Your task to perform on an android device: Clear the shopping cart on target. Search for "macbook pro" on target, select the first entry, and add it to the cart. Image 0: 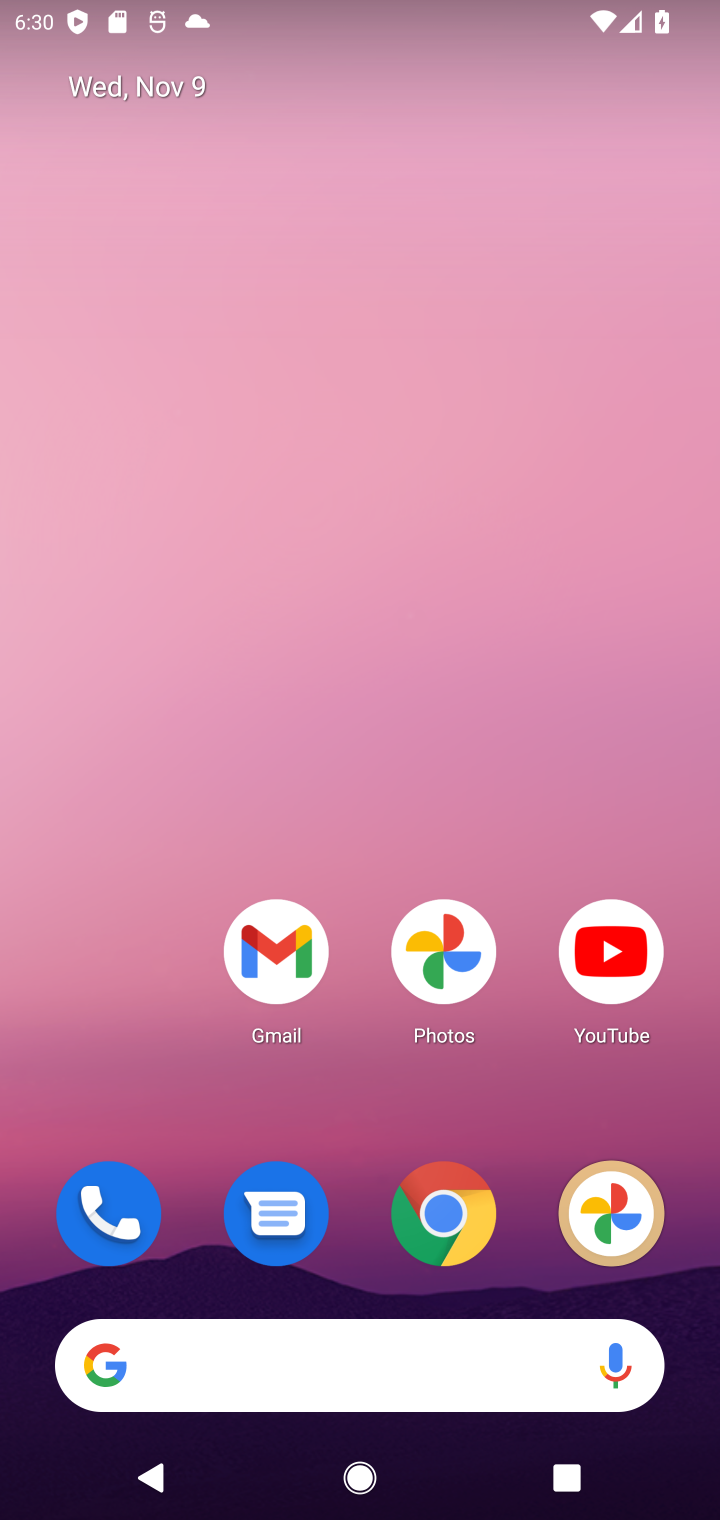
Step 0: click (459, 1219)
Your task to perform on an android device: Clear the shopping cart on target. Search for "macbook pro" on target, select the first entry, and add it to the cart. Image 1: 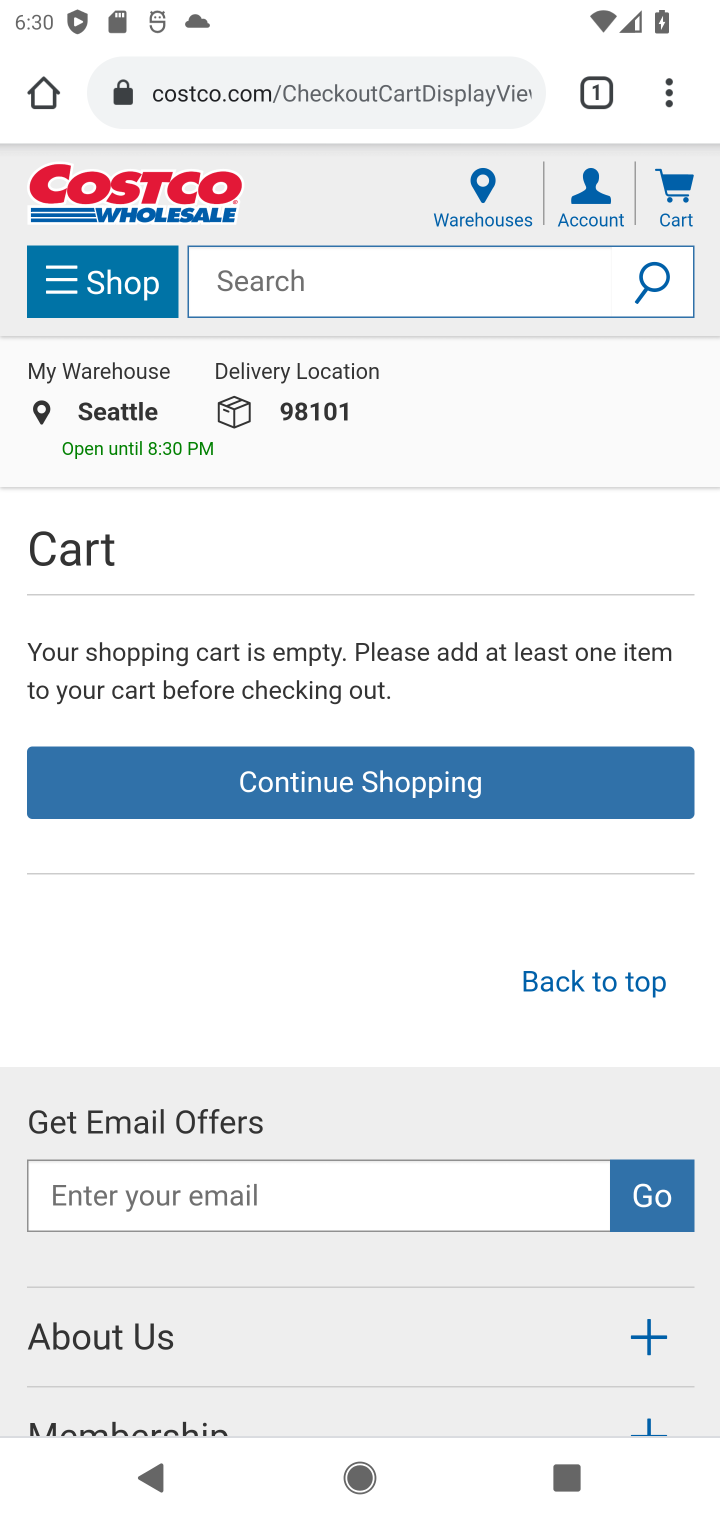
Step 1: click (309, 93)
Your task to perform on an android device: Clear the shopping cart on target. Search for "macbook pro" on target, select the first entry, and add it to the cart. Image 2: 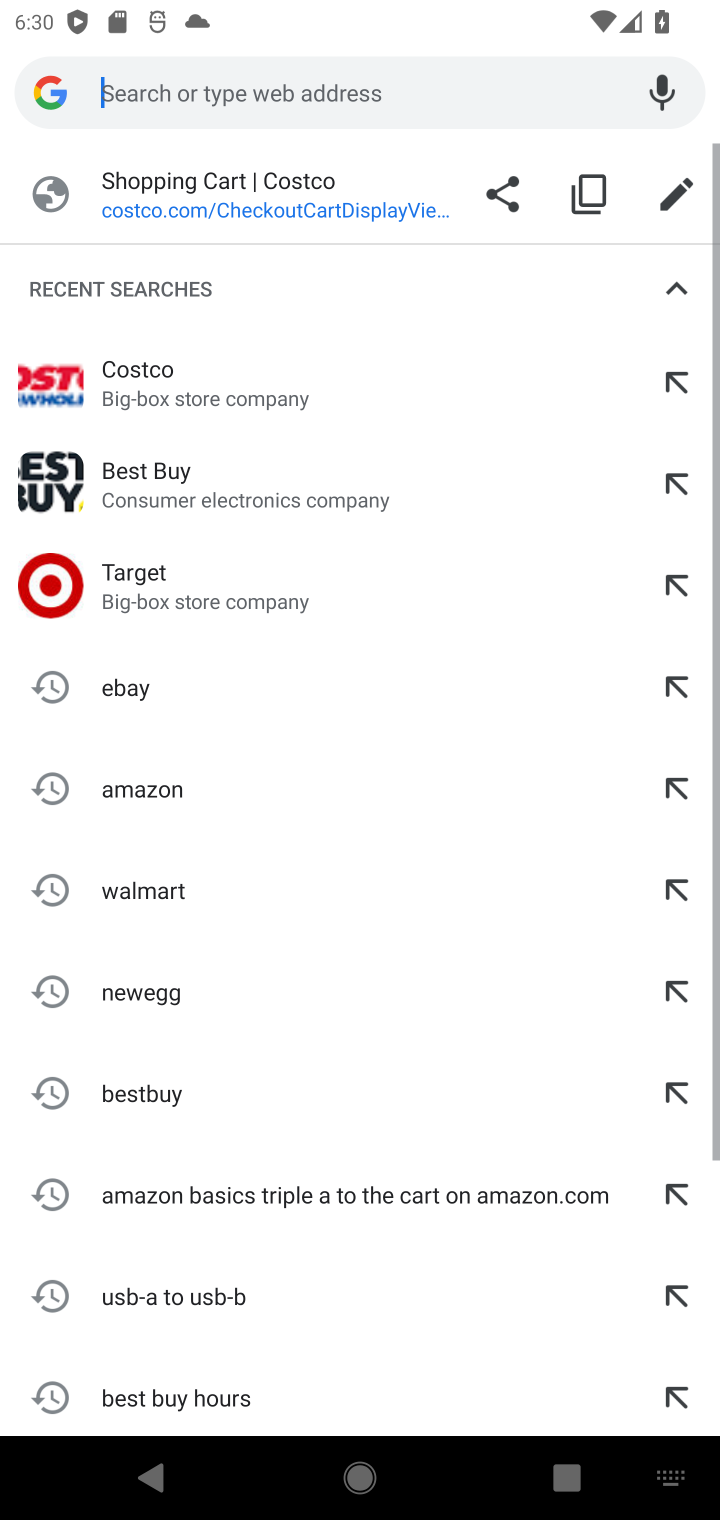
Step 2: click (136, 563)
Your task to perform on an android device: Clear the shopping cart on target. Search for "macbook pro" on target, select the first entry, and add it to the cart. Image 3: 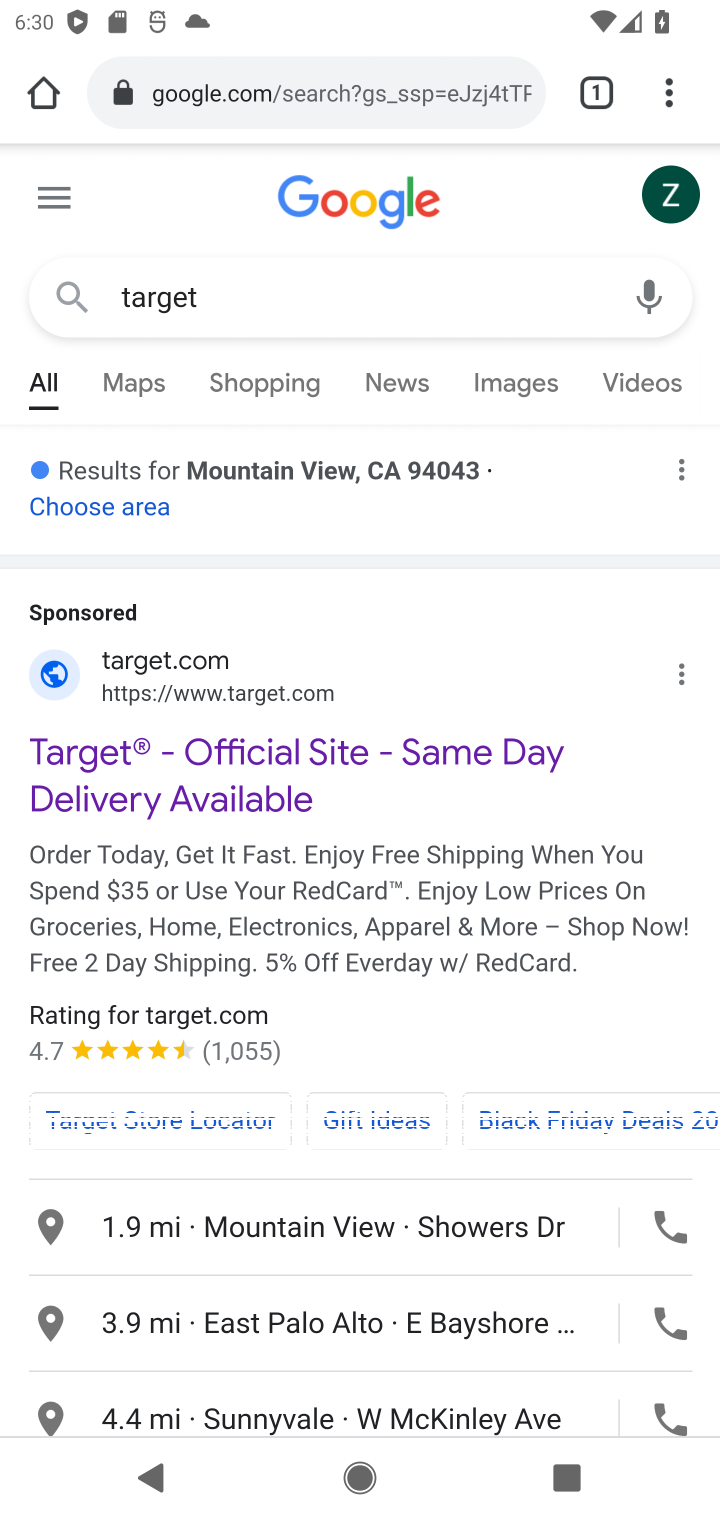
Step 3: drag from (201, 1053) to (241, 310)
Your task to perform on an android device: Clear the shopping cart on target. Search for "macbook pro" on target, select the first entry, and add it to the cart. Image 4: 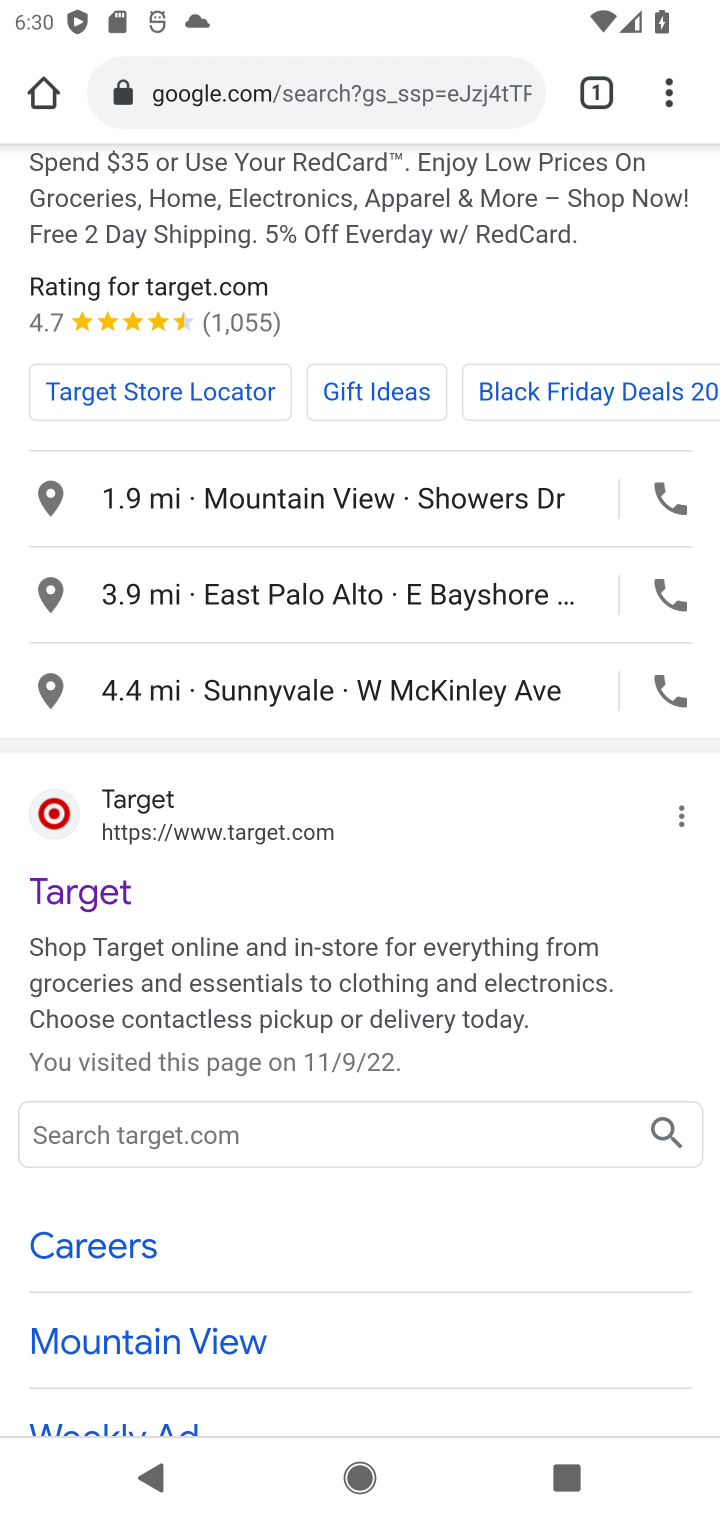
Step 4: click (101, 896)
Your task to perform on an android device: Clear the shopping cart on target. Search for "macbook pro" on target, select the first entry, and add it to the cart. Image 5: 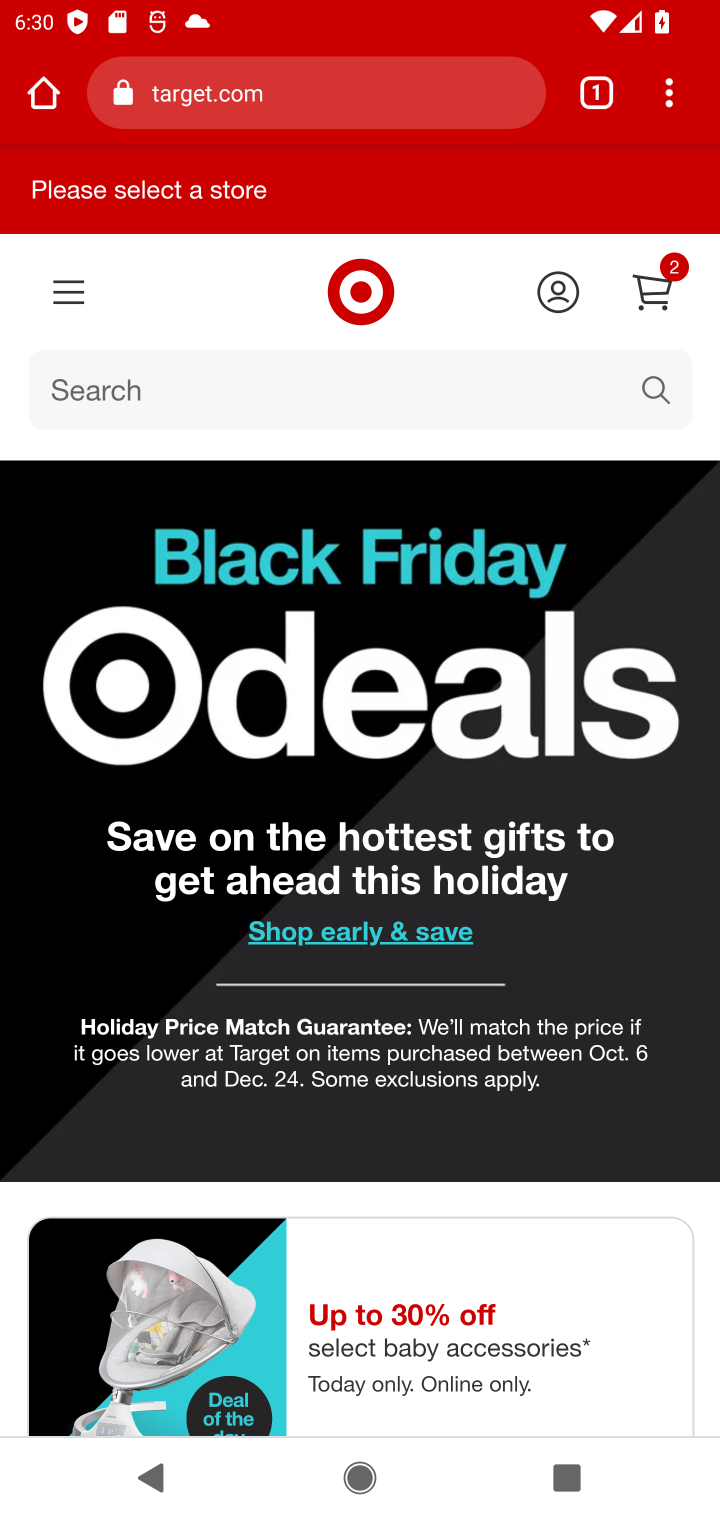
Step 5: click (258, 384)
Your task to perform on an android device: Clear the shopping cart on target. Search for "macbook pro" on target, select the first entry, and add it to the cart. Image 6: 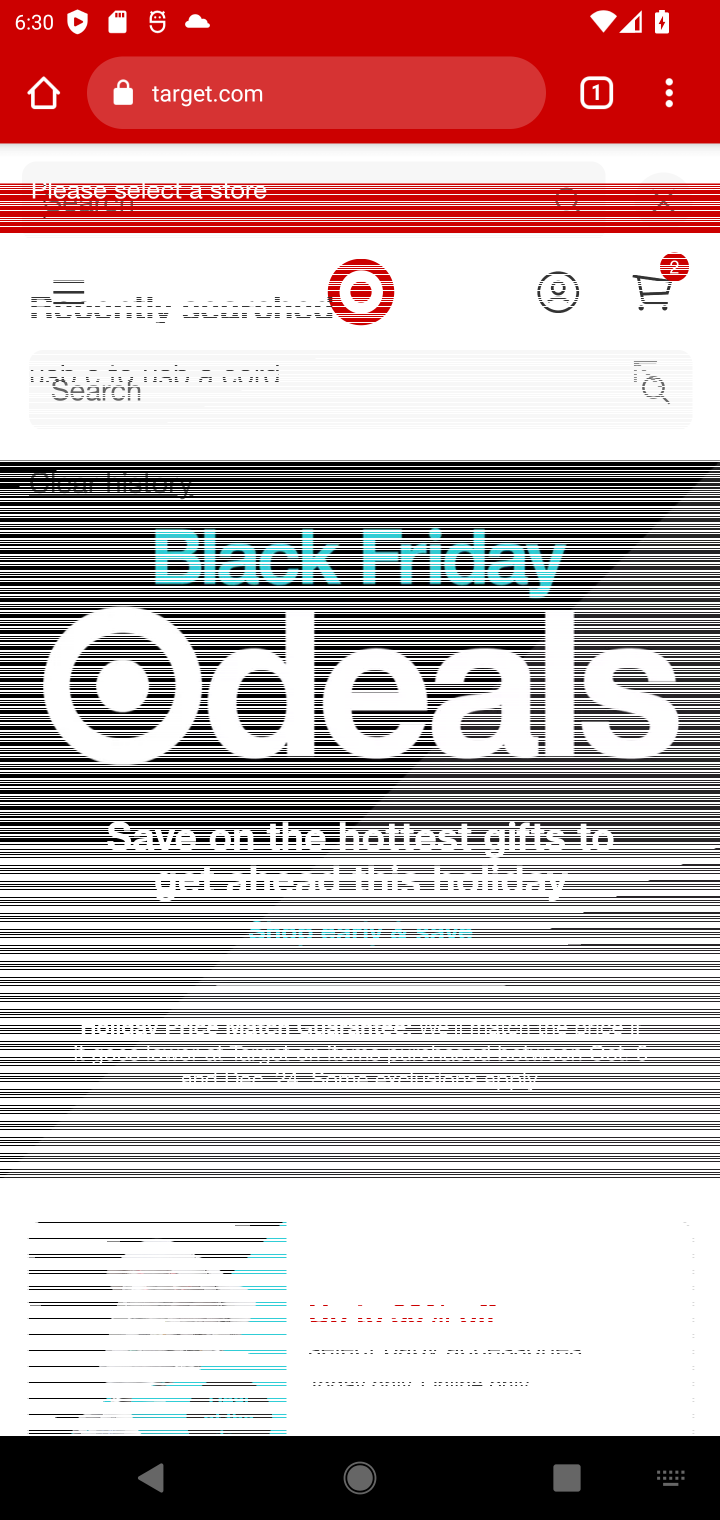
Step 6: type "macbook pro"
Your task to perform on an android device: Clear the shopping cart on target. Search for "macbook pro" on target, select the first entry, and add it to the cart. Image 7: 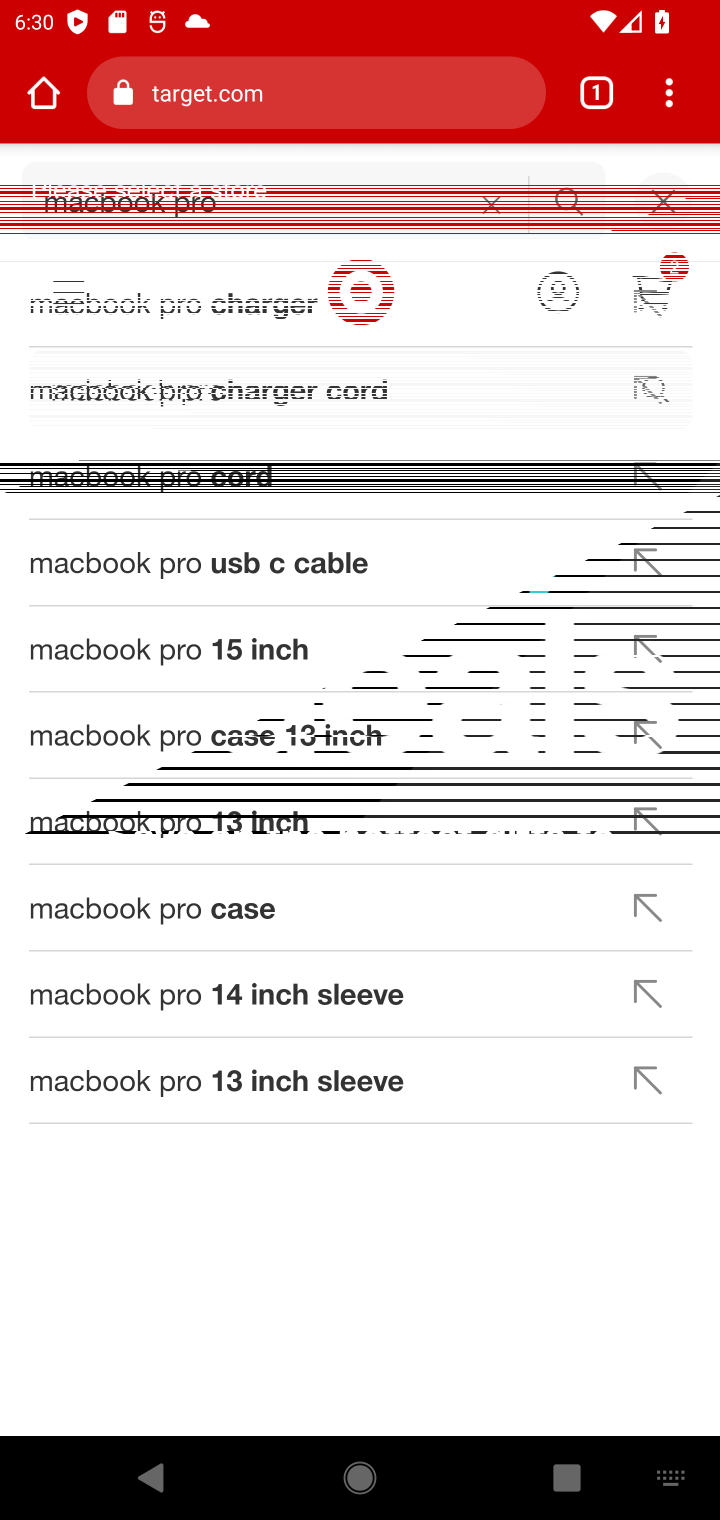
Step 7: click (124, 294)
Your task to perform on an android device: Clear the shopping cart on target. Search for "macbook pro" on target, select the first entry, and add it to the cart. Image 8: 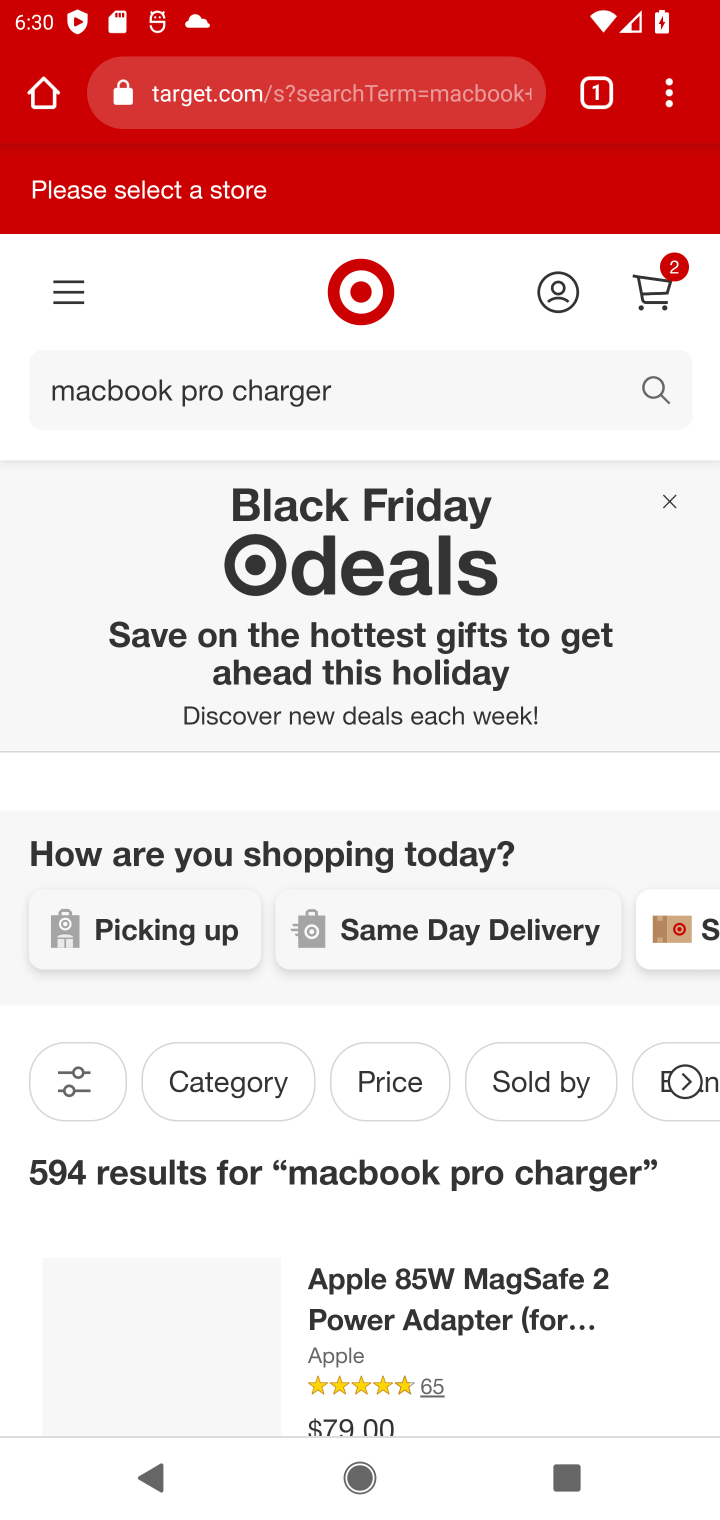
Step 8: drag from (411, 1280) to (433, 603)
Your task to perform on an android device: Clear the shopping cart on target. Search for "macbook pro" on target, select the first entry, and add it to the cart. Image 9: 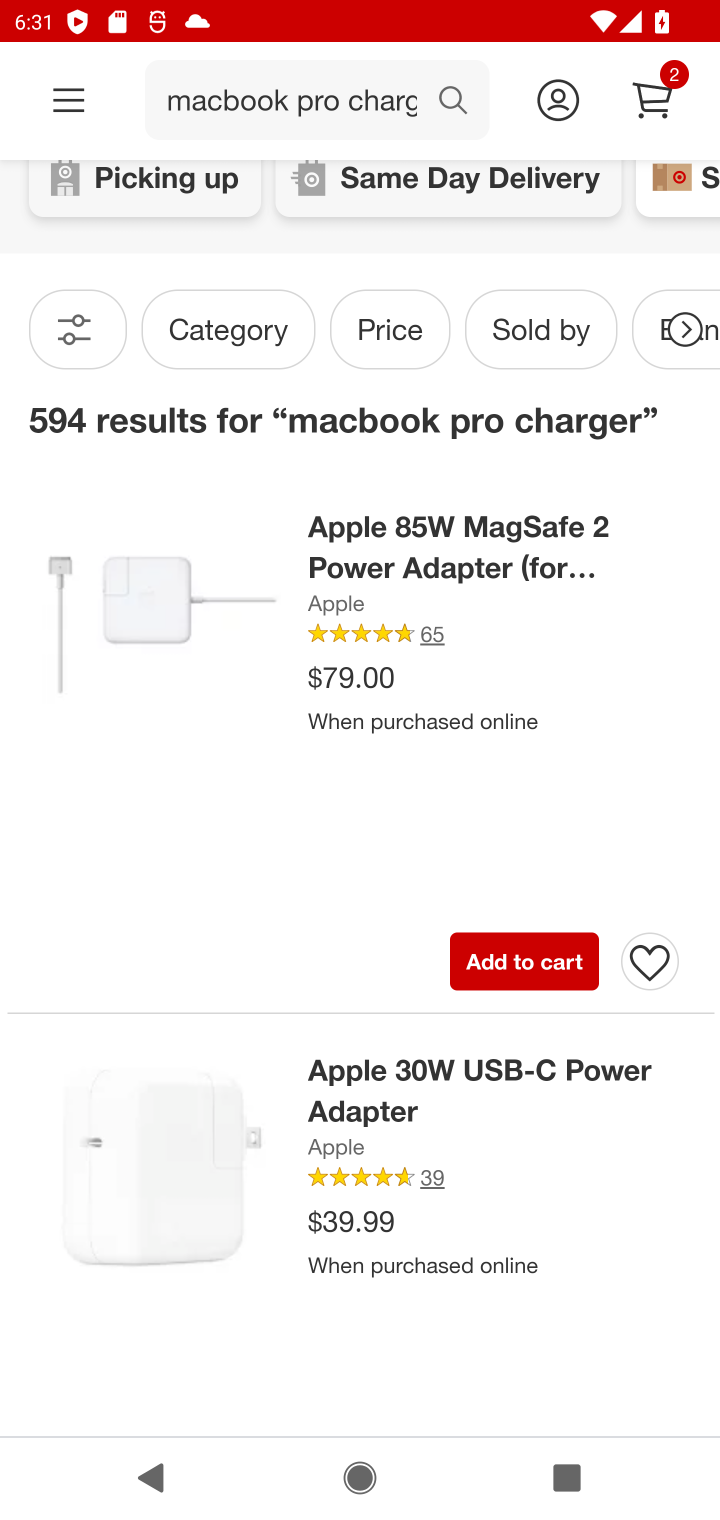
Step 9: click (424, 1148)
Your task to perform on an android device: Clear the shopping cart on target. Search for "macbook pro" on target, select the first entry, and add it to the cart. Image 10: 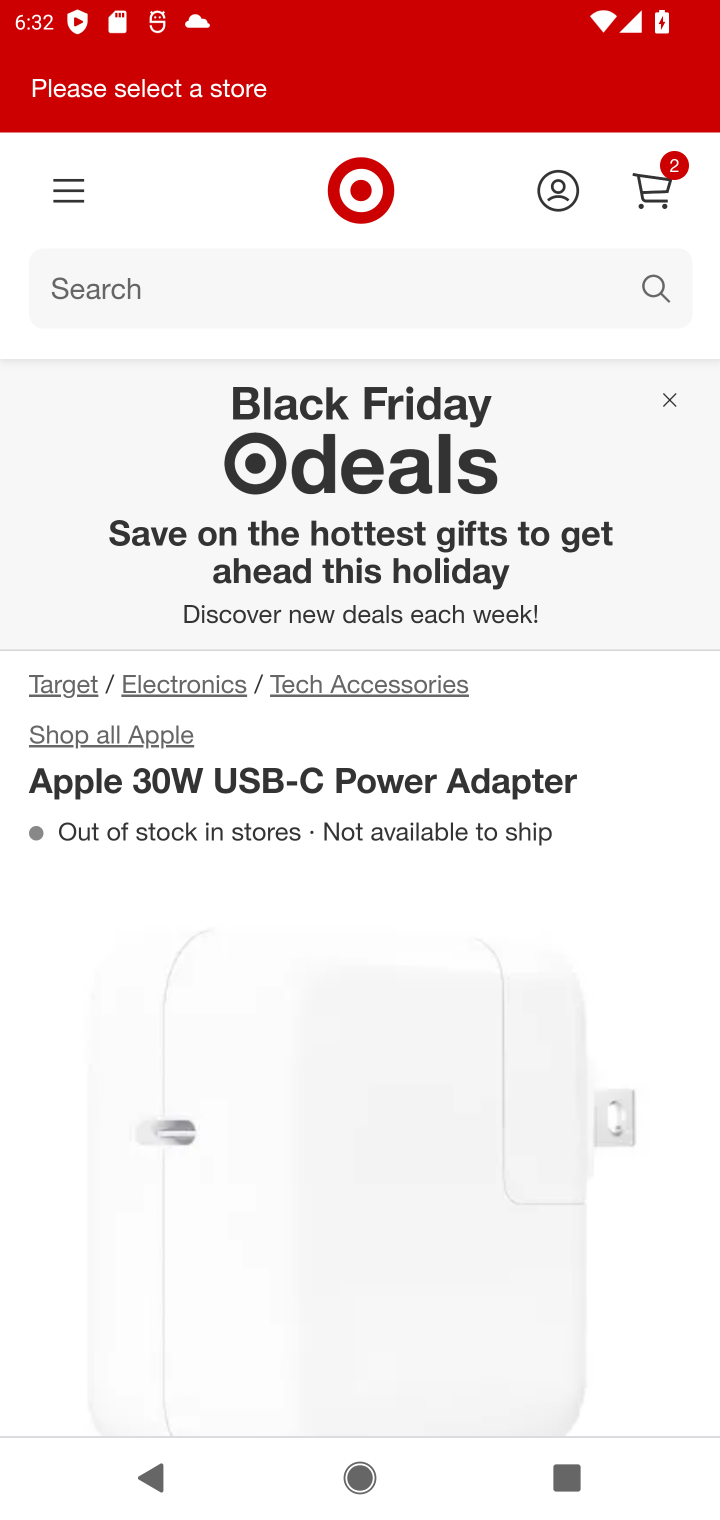
Step 10: drag from (75, 1139) to (317, 522)
Your task to perform on an android device: Clear the shopping cart on target. Search for "macbook pro" on target, select the first entry, and add it to the cart. Image 11: 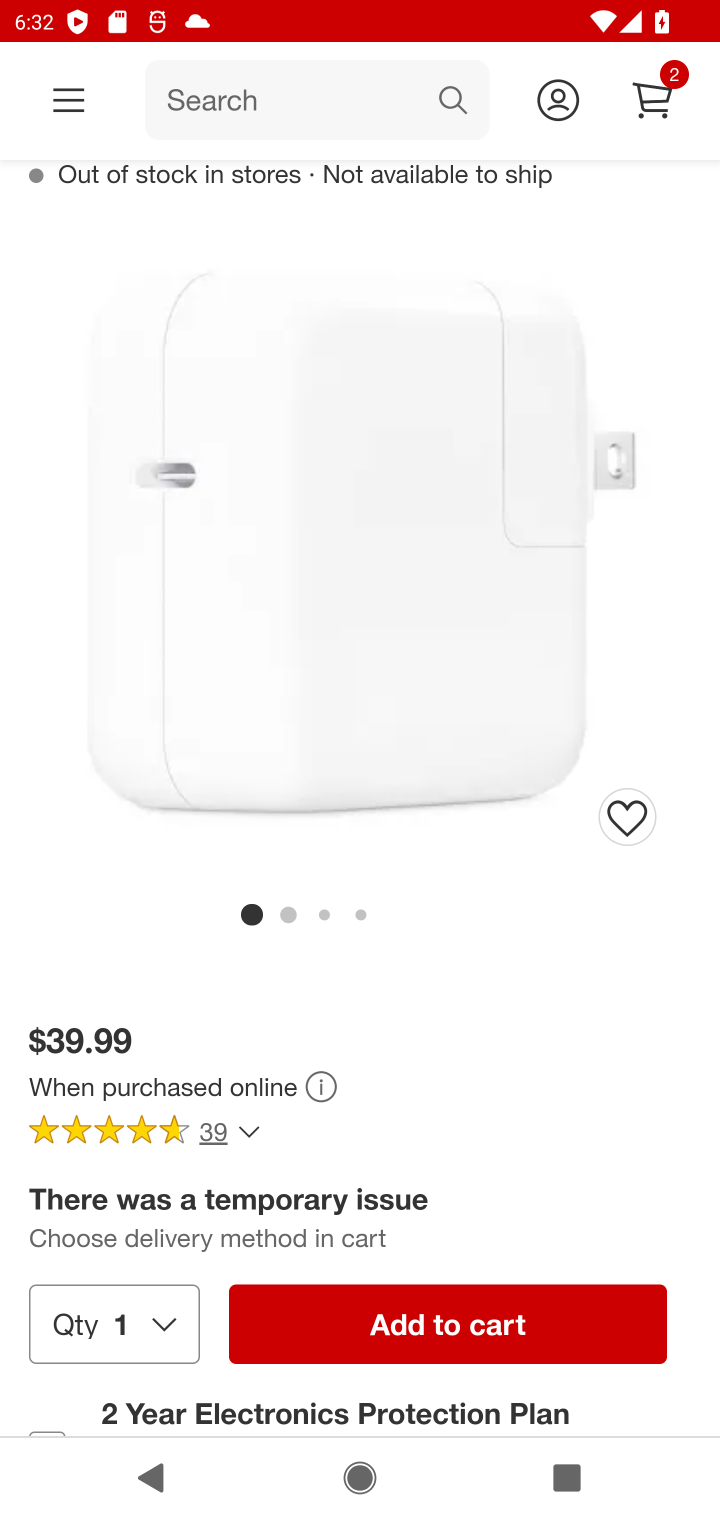
Step 11: drag from (363, 1139) to (376, 857)
Your task to perform on an android device: Clear the shopping cart on target. Search for "macbook pro" on target, select the first entry, and add it to the cart. Image 12: 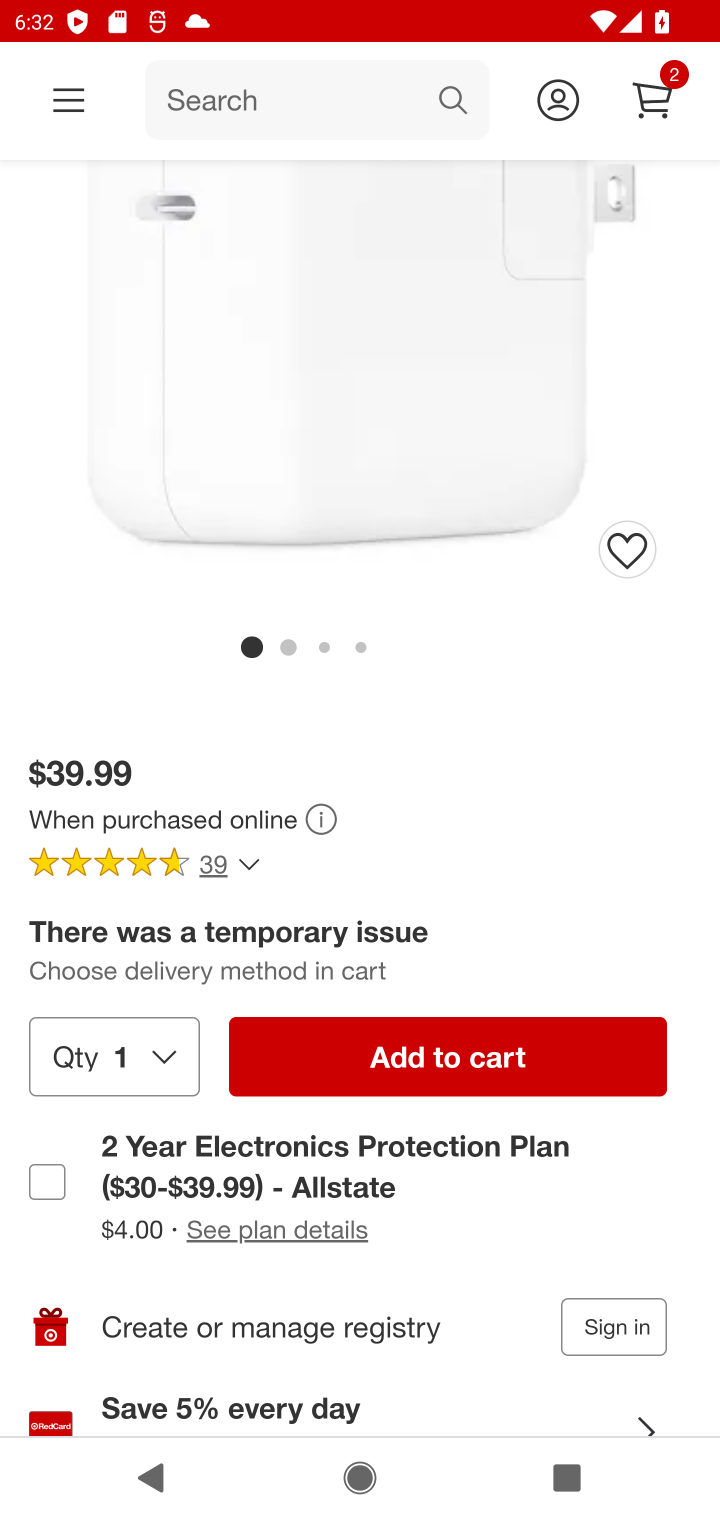
Step 12: click (485, 1071)
Your task to perform on an android device: Clear the shopping cart on target. Search for "macbook pro" on target, select the first entry, and add it to the cart. Image 13: 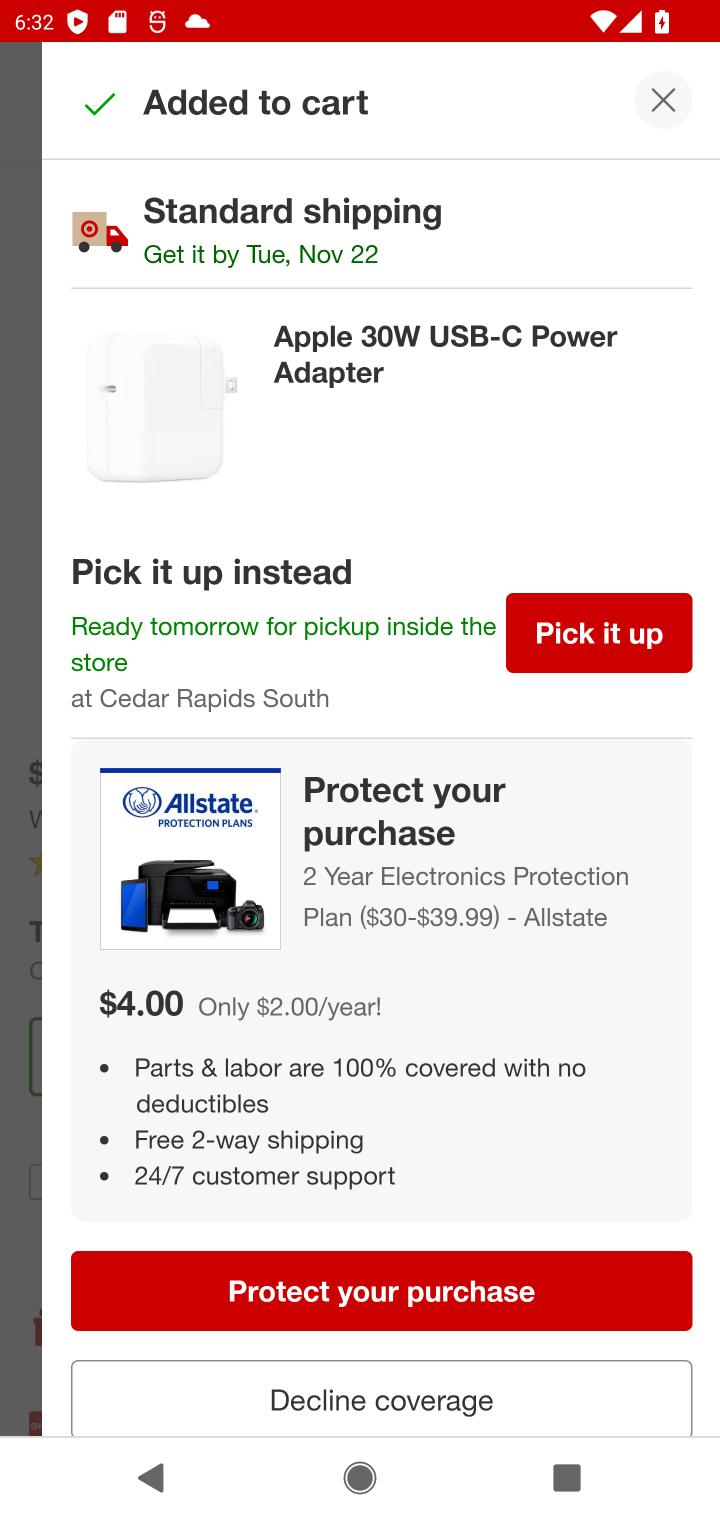
Step 13: click (429, 1300)
Your task to perform on an android device: Clear the shopping cart on target. Search for "macbook pro" on target, select the first entry, and add it to the cart. Image 14: 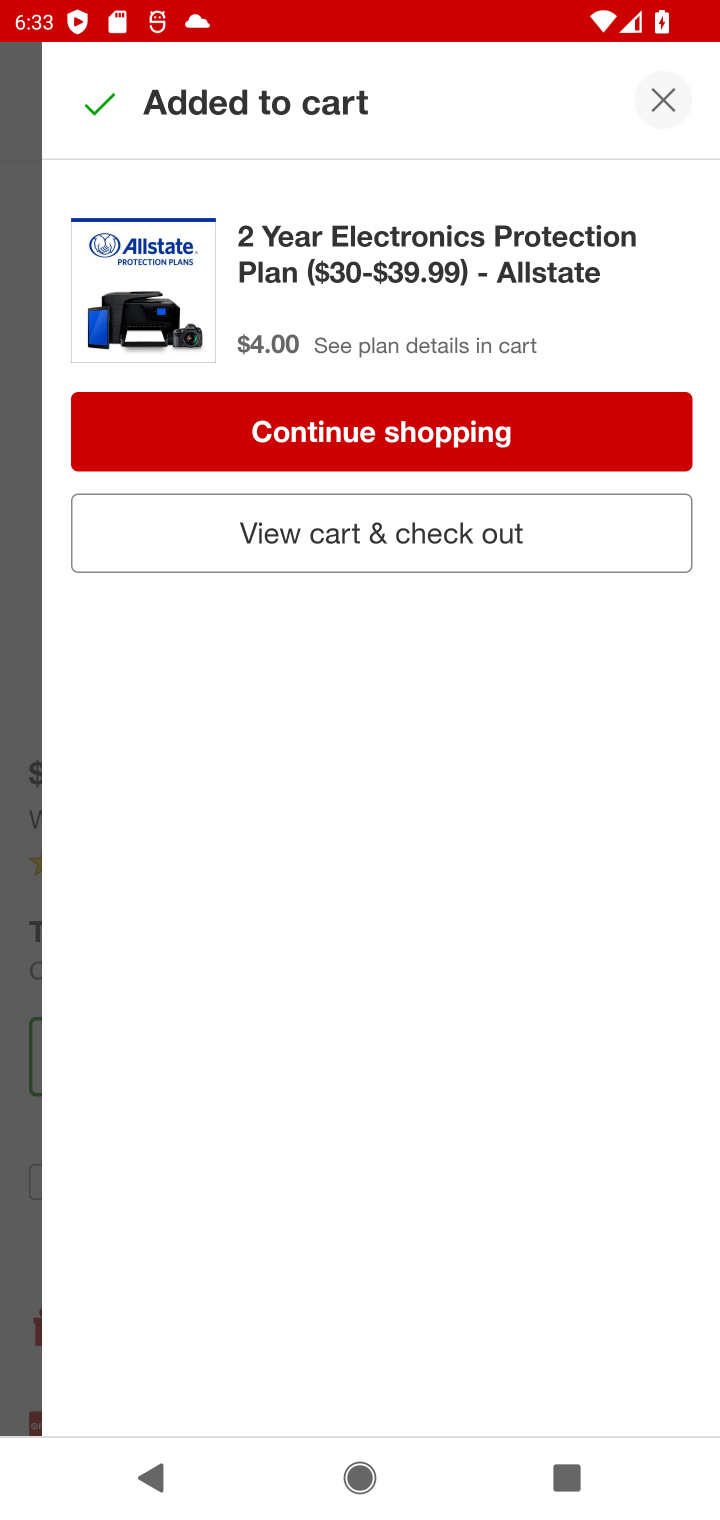
Step 14: click (284, 547)
Your task to perform on an android device: Clear the shopping cart on target. Search for "macbook pro" on target, select the first entry, and add it to the cart. Image 15: 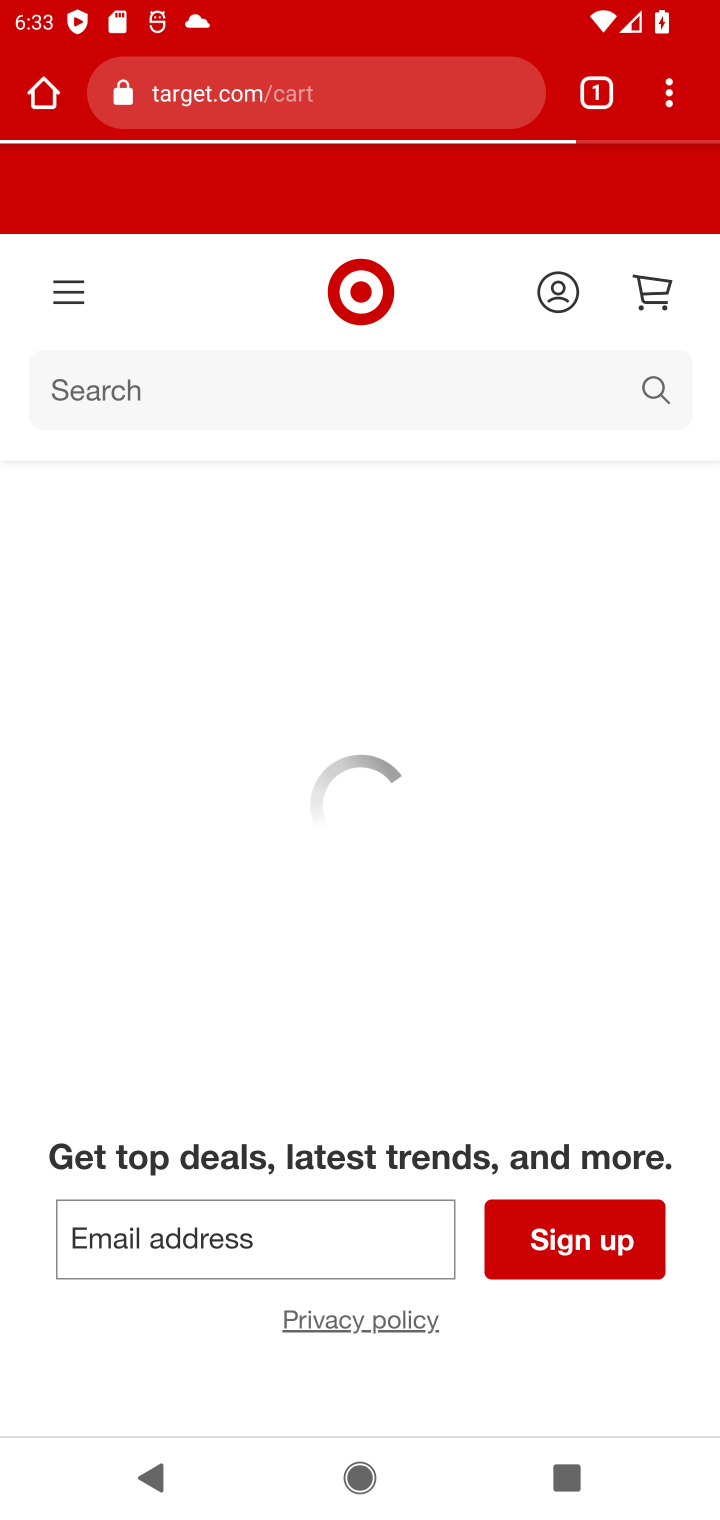
Step 15: task complete